Your task to perform on an android device: see sites visited before in the chrome app Image 0: 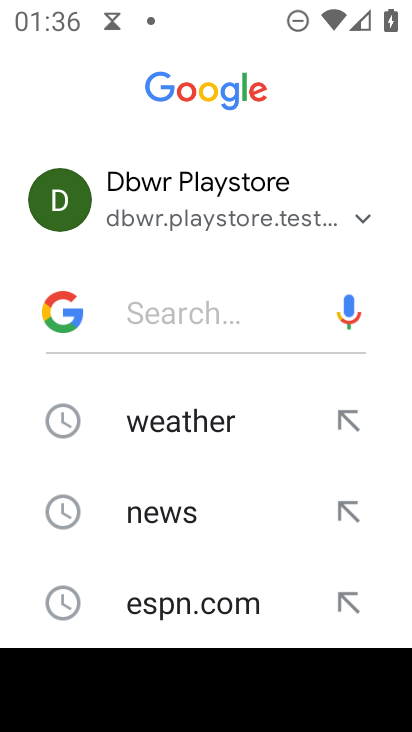
Step 0: press home button
Your task to perform on an android device: see sites visited before in the chrome app Image 1: 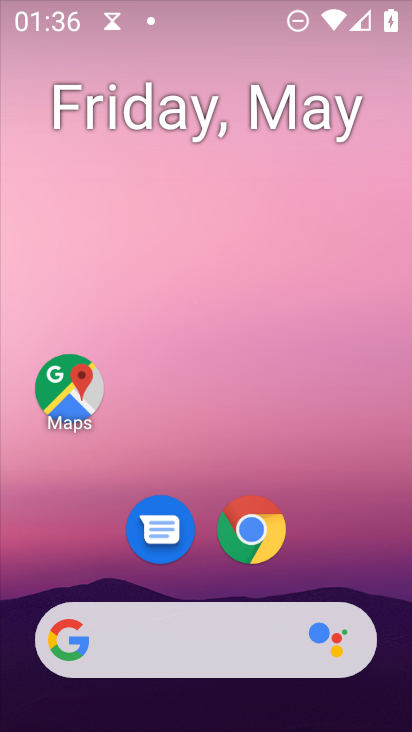
Step 1: drag from (306, 524) to (304, 203)
Your task to perform on an android device: see sites visited before in the chrome app Image 2: 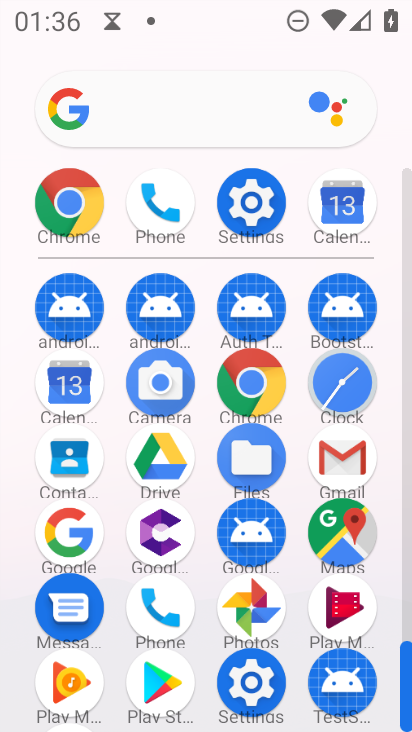
Step 2: click (35, 195)
Your task to perform on an android device: see sites visited before in the chrome app Image 3: 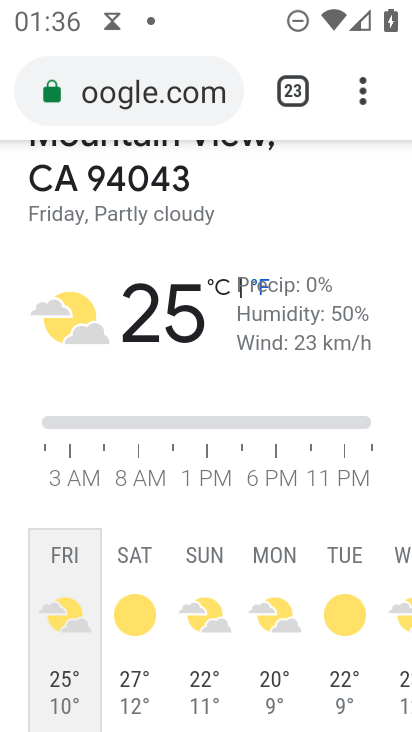
Step 3: click (330, 91)
Your task to perform on an android device: see sites visited before in the chrome app Image 4: 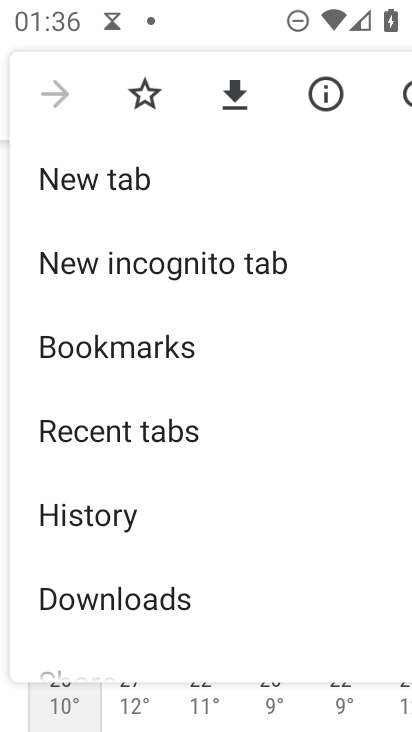
Step 4: click (90, 508)
Your task to perform on an android device: see sites visited before in the chrome app Image 5: 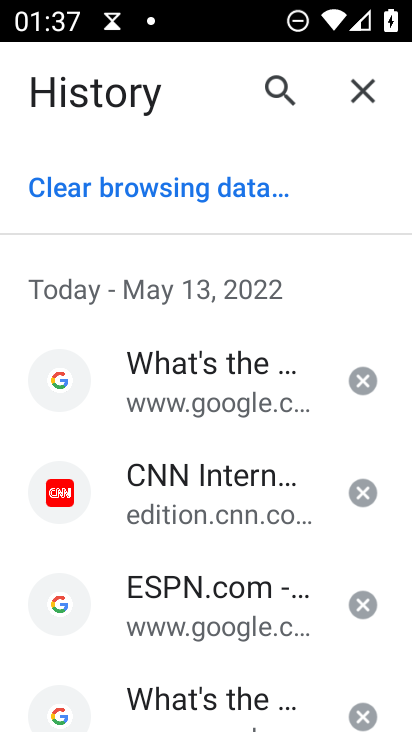
Step 5: task complete